Your task to perform on an android device: Open Maps and search for coffee Image 0: 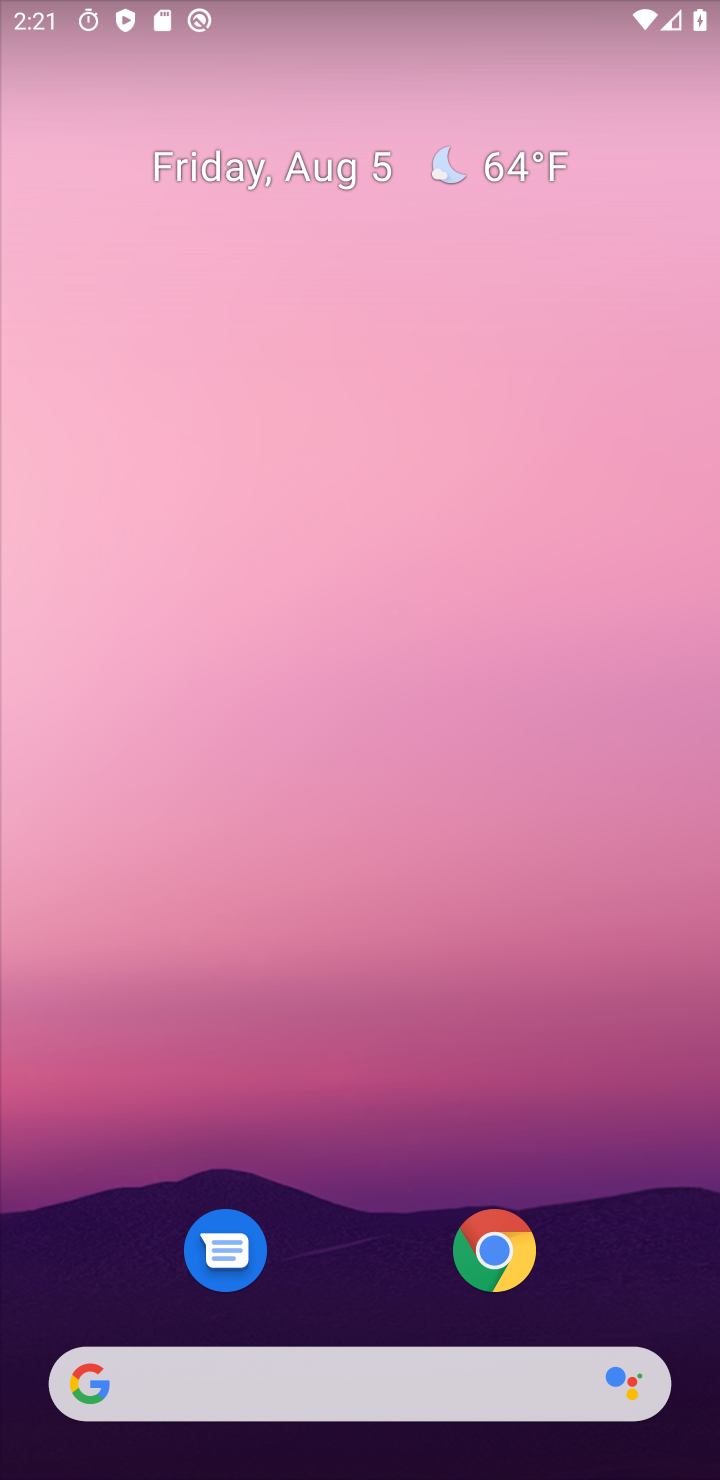
Step 0: drag from (385, 1248) to (371, 181)
Your task to perform on an android device: Open Maps and search for coffee Image 1: 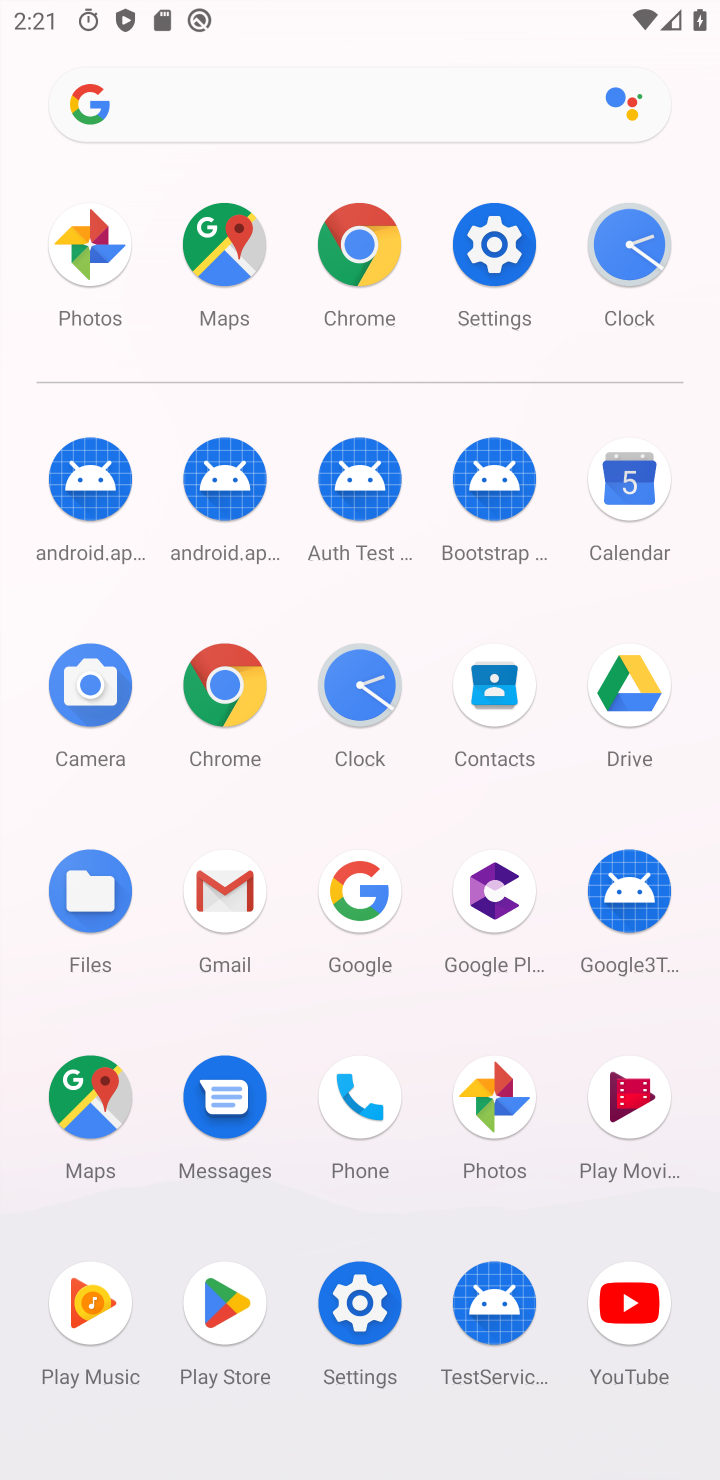
Step 1: click (108, 1106)
Your task to perform on an android device: Open Maps and search for coffee Image 2: 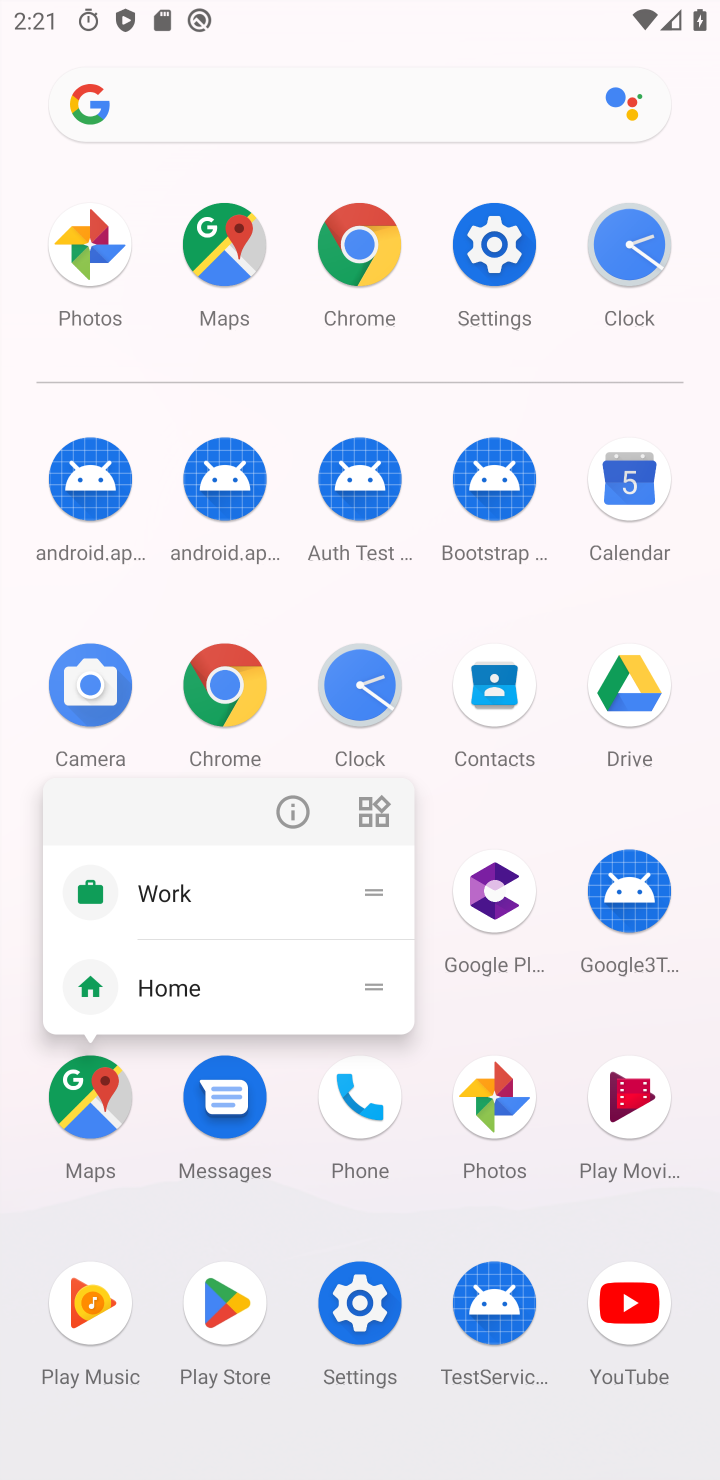
Step 2: click (285, 807)
Your task to perform on an android device: Open Maps and search for coffee Image 3: 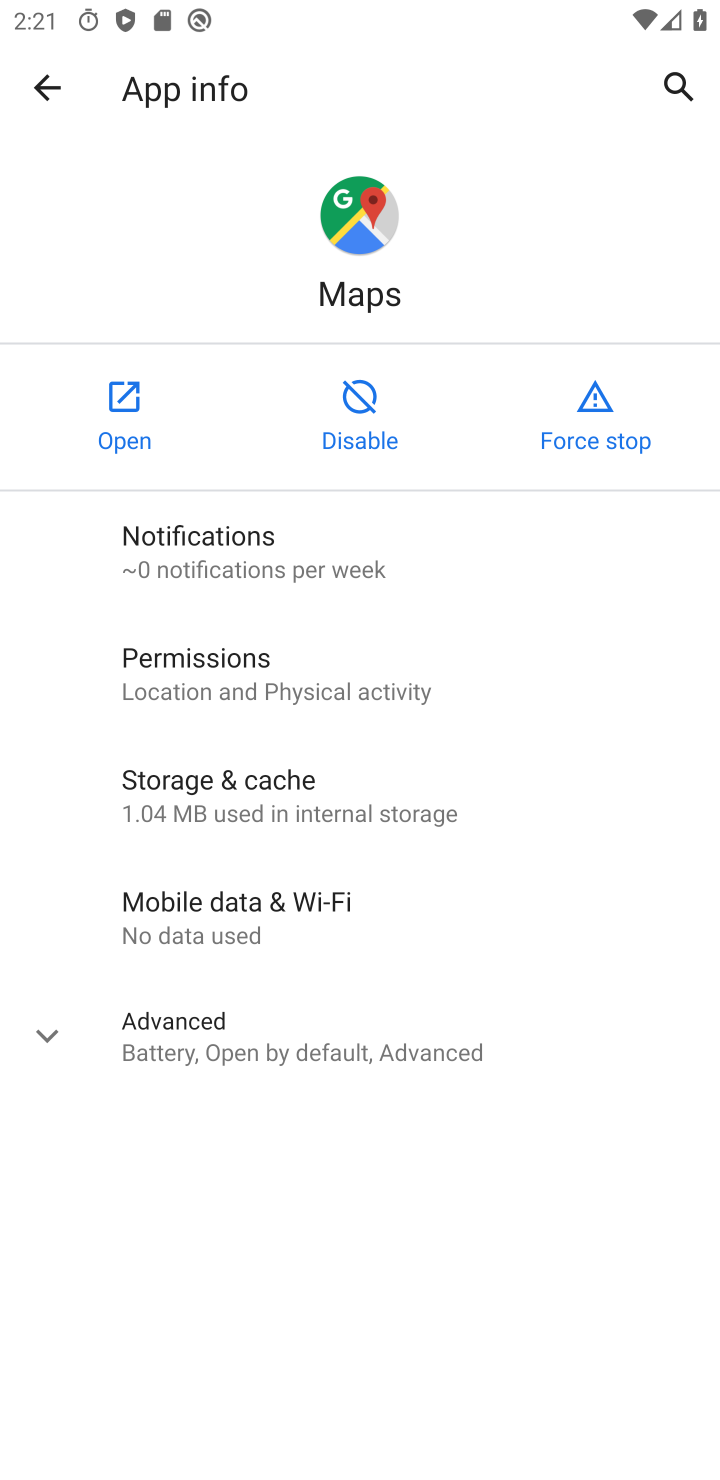
Step 3: click (92, 367)
Your task to perform on an android device: Open Maps and search for coffee Image 4: 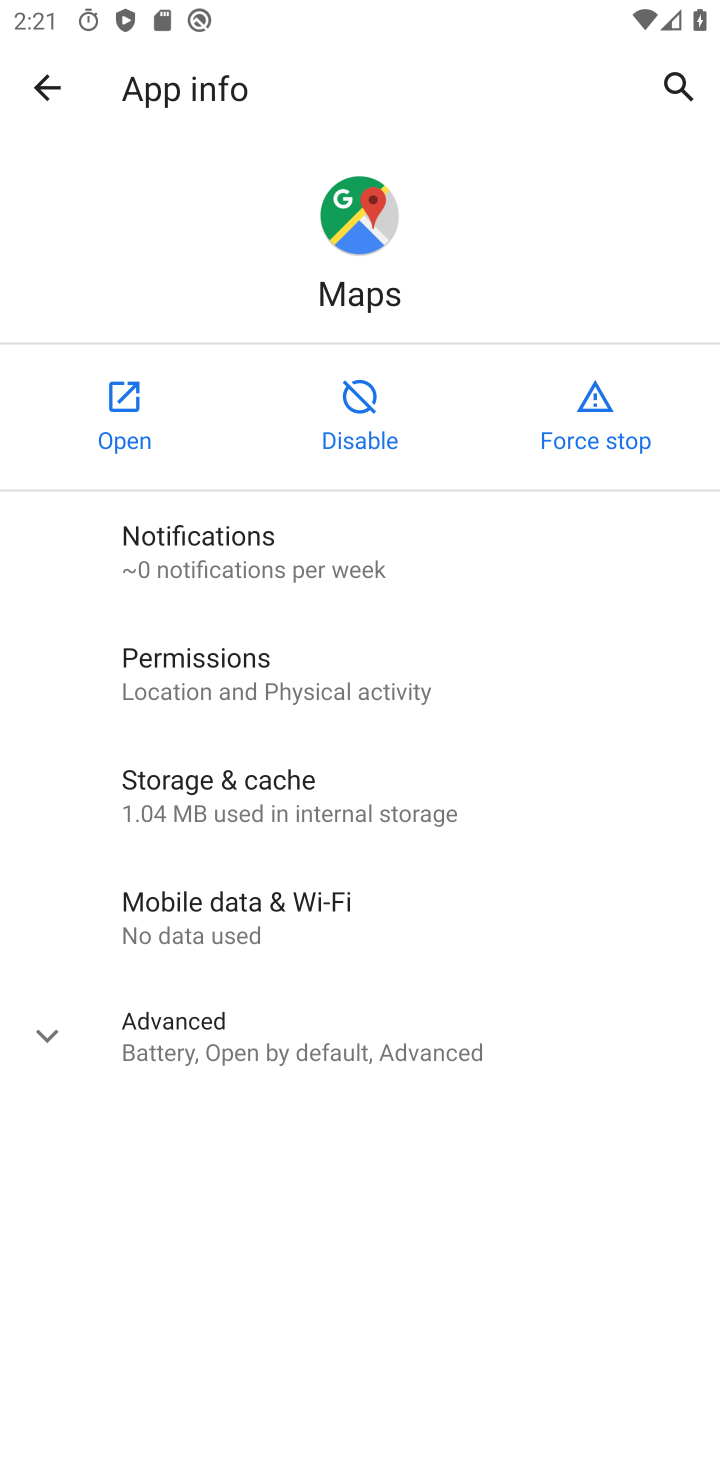
Step 4: click (130, 407)
Your task to perform on an android device: Open Maps and search for coffee Image 5: 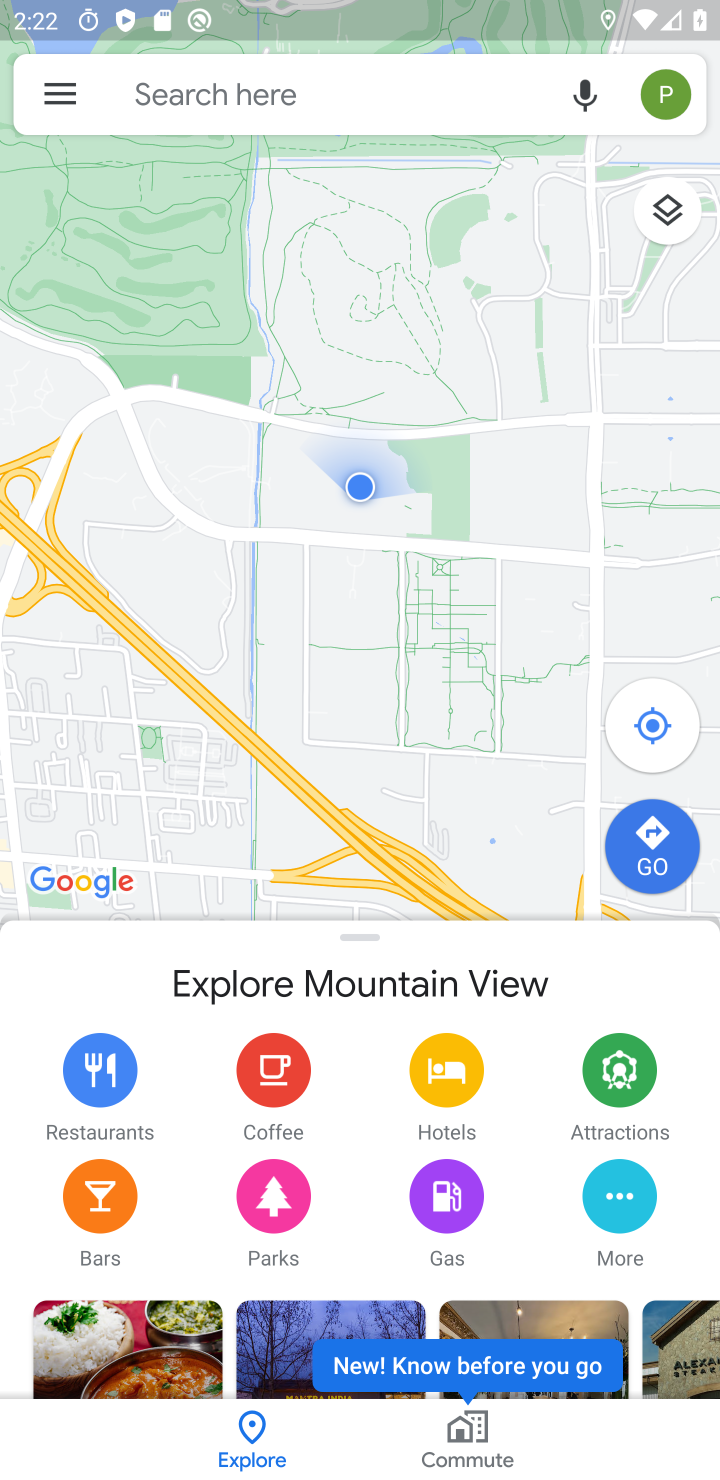
Step 5: click (272, 89)
Your task to perform on an android device: Open Maps and search for coffee Image 6: 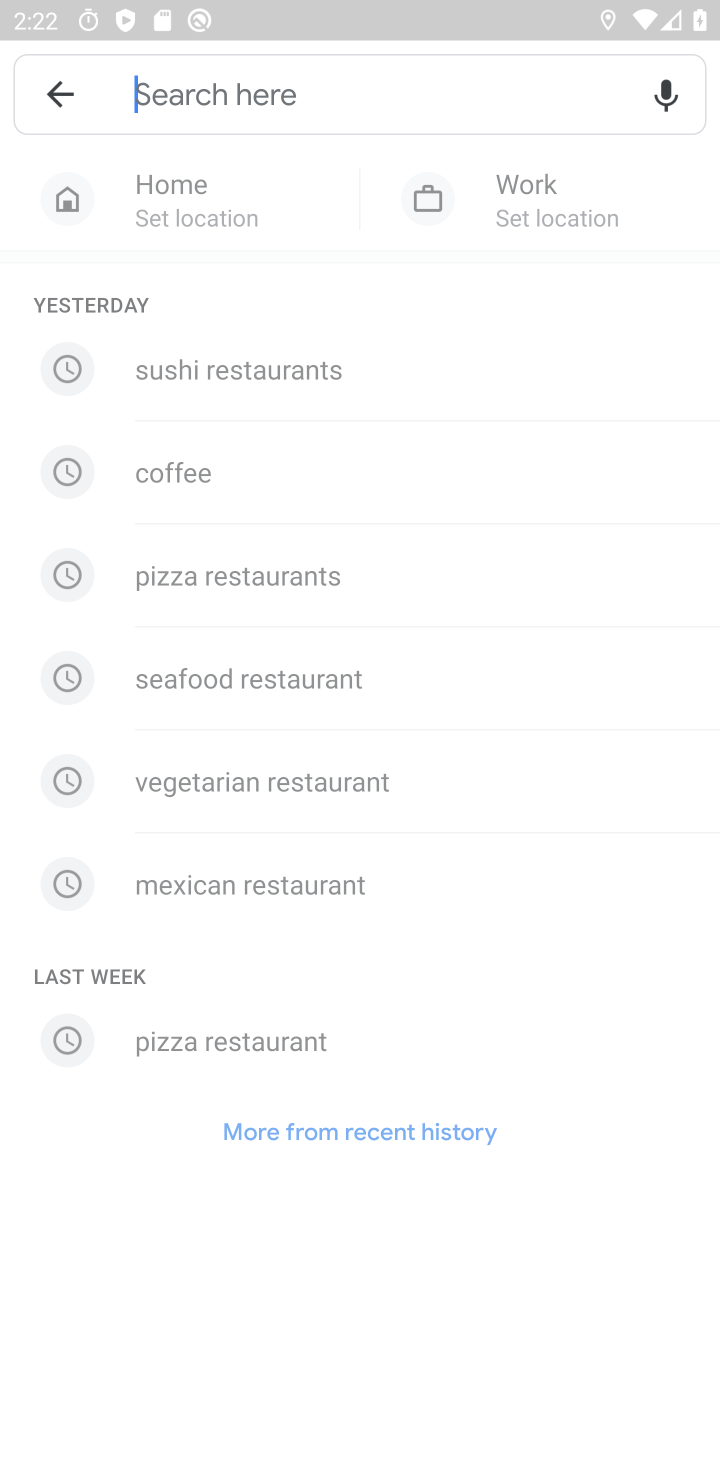
Step 6: click (190, 485)
Your task to perform on an android device: Open Maps and search for coffee Image 7: 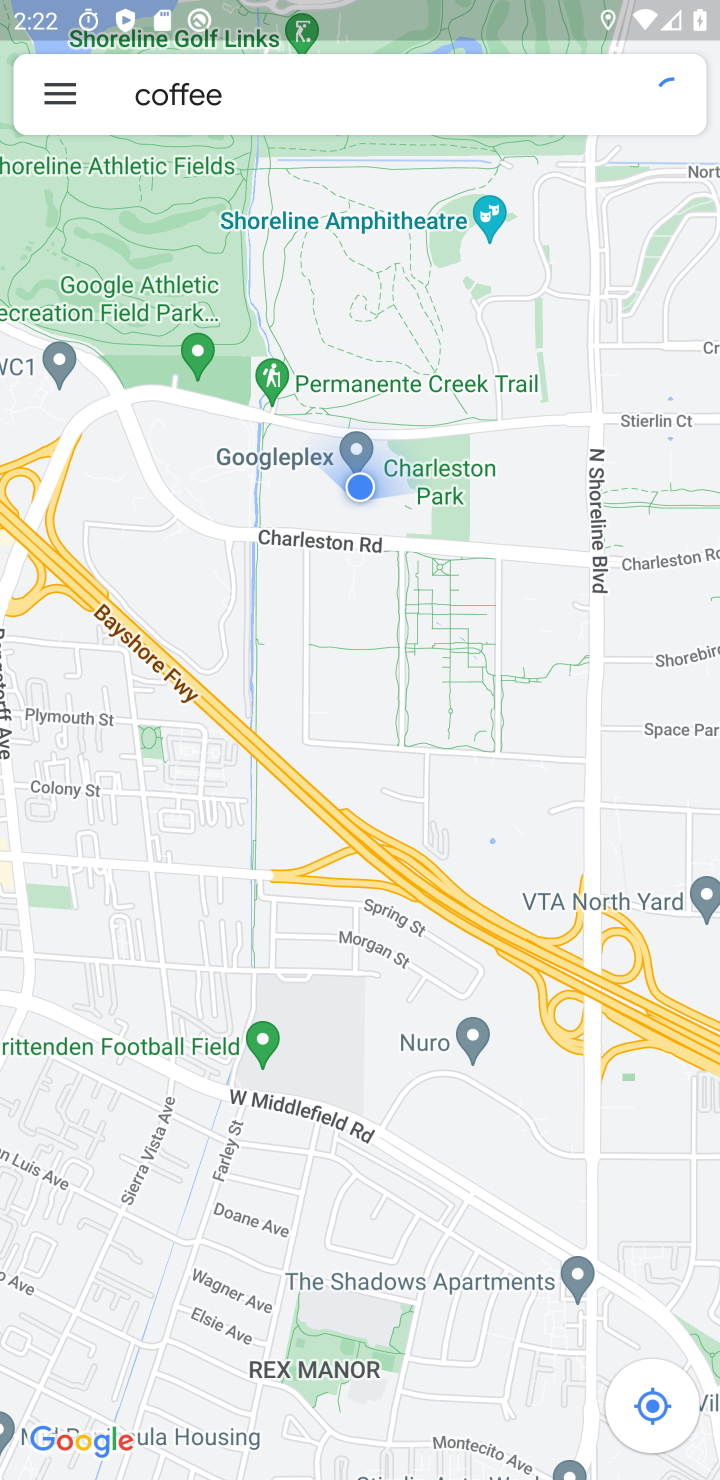
Step 7: task complete